Your task to perform on an android device: Go to Wikipedia Image 0: 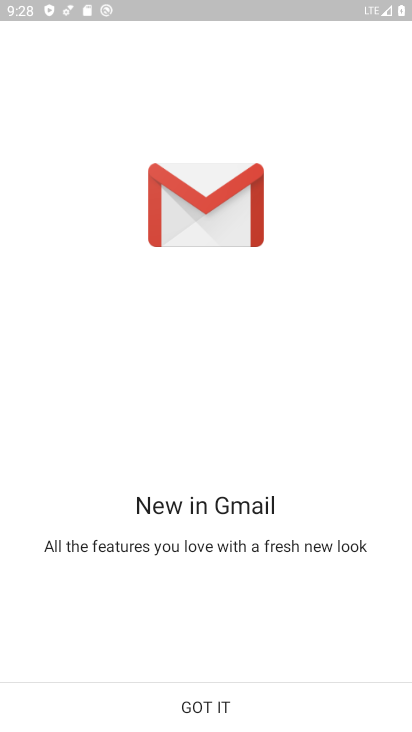
Step 0: press home button
Your task to perform on an android device: Go to Wikipedia Image 1: 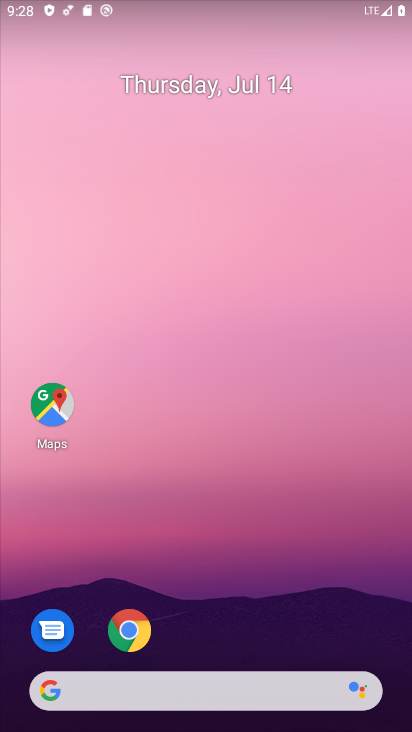
Step 1: click (136, 645)
Your task to perform on an android device: Go to Wikipedia Image 2: 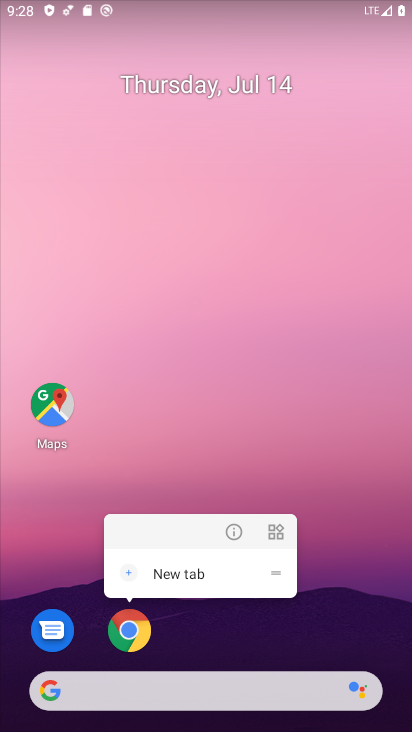
Step 2: click (131, 638)
Your task to perform on an android device: Go to Wikipedia Image 3: 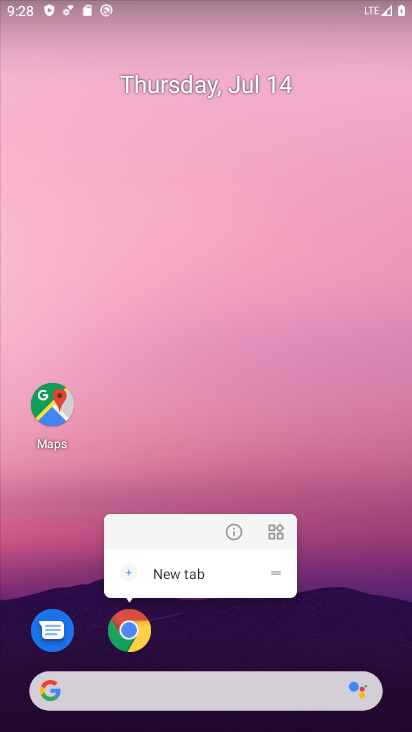
Step 3: click (131, 638)
Your task to perform on an android device: Go to Wikipedia Image 4: 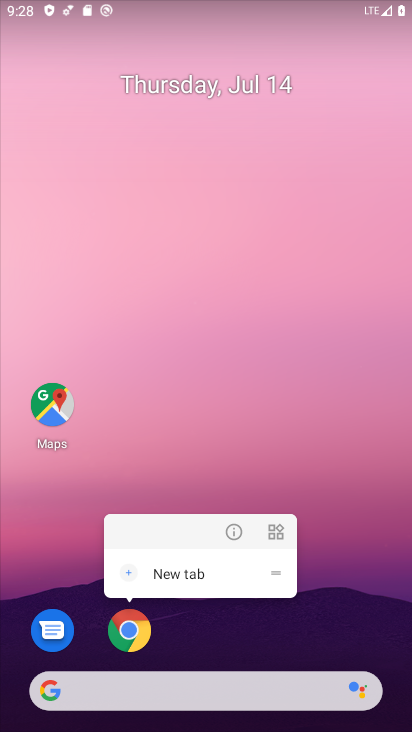
Step 4: click (131, 638)
Your task to perform on an android device: Go to Wikipedia Image 5: 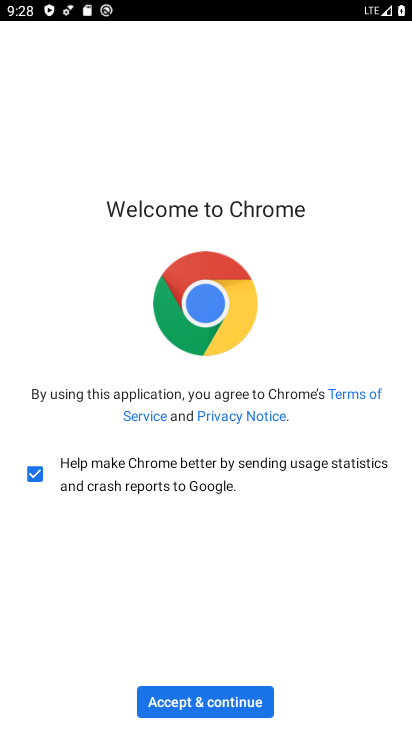
Step 5: click (229, 709)
Your task to perform on an android device: Go to Wikipedia Image 6: 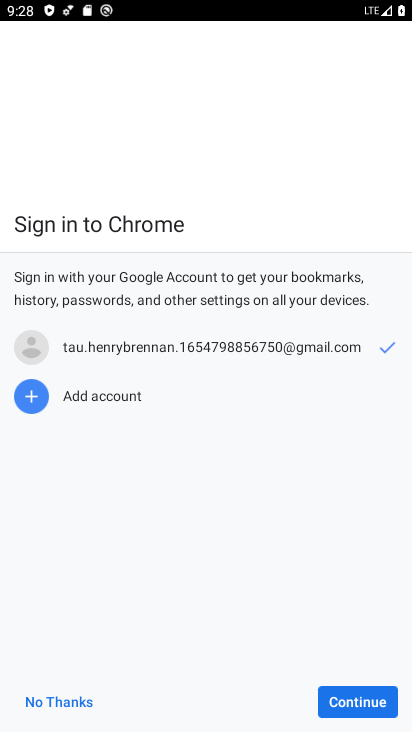
Step 6: click (380, 692)
Your task to perform on an android device: Go to Wikipedia Image 7: 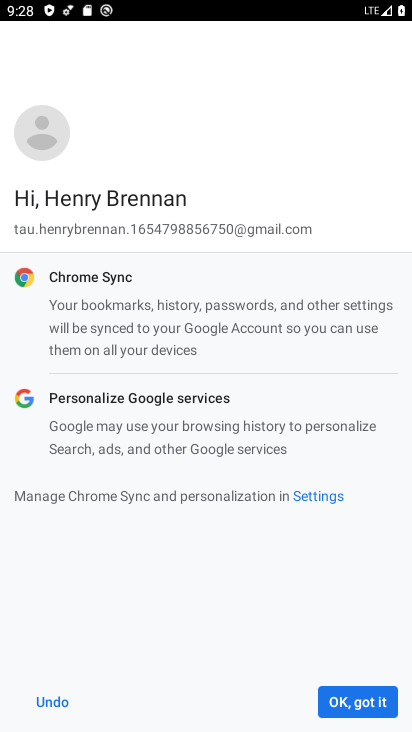
Step 7: click (373, 692)
Your task to perform on an android device: Go to Wikipedia Image 8: 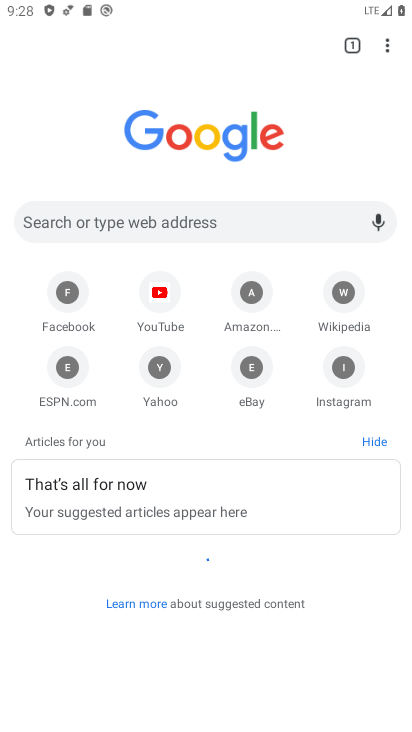
Step 8: click (365, 294)
Your task to perform on an android device: Go to Wikipedia Image 9: 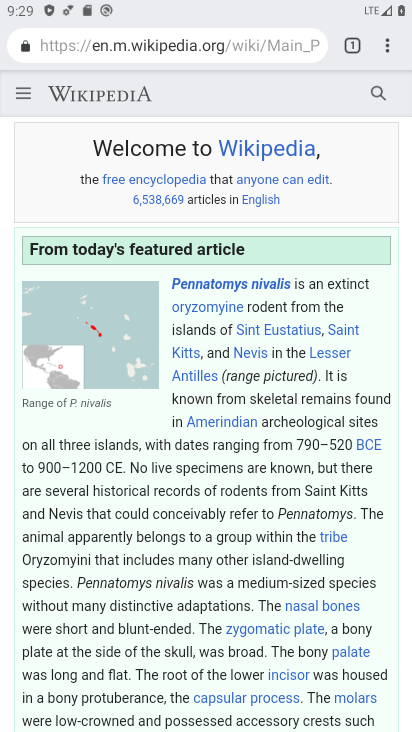
Step 9: task complete